Your task to perform on an android device: add a contact Image 0: 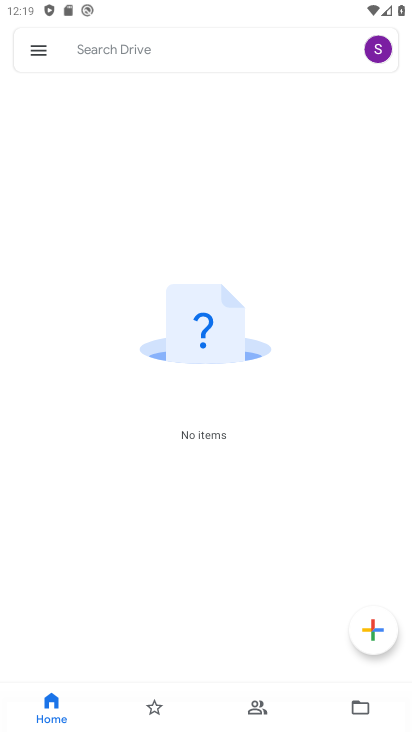
Step 0: press home button
Your task to perform on an android device: add a contact Image 1: 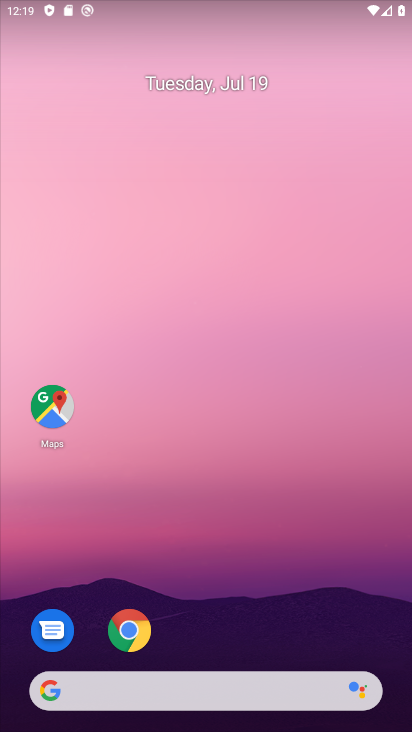
Step 1: drag from (199, 693) to (309, 205)
Your task to perform on an android device: add a contact Image 2: 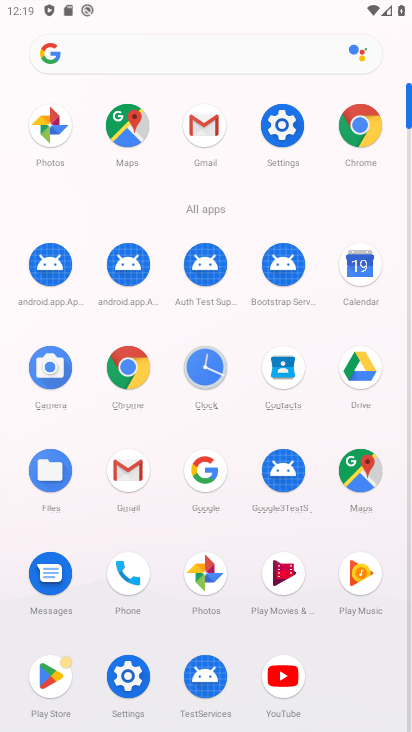
Step 2: click (282, 373)
Your task to perform on an android device: add a contact Image 3: 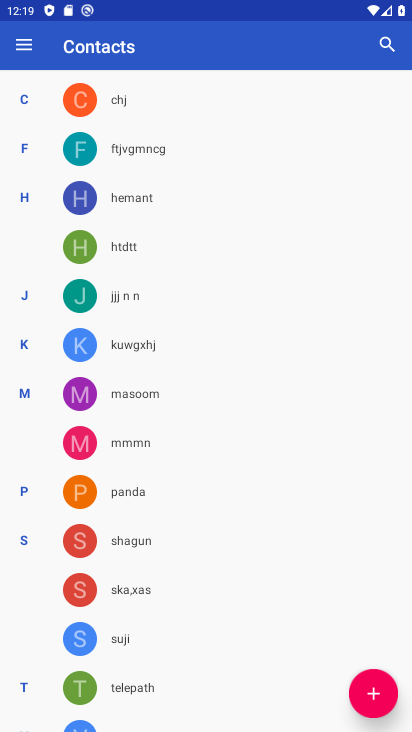
Step 3: click (369, 687)
Your task to perform on an android device: add a contact Image 4: 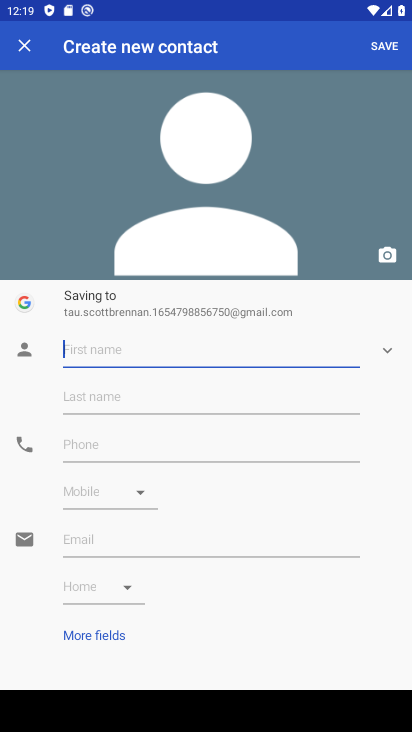
Step 4: type "erfghhh"
Your task to perform on an android device: add a contact Image 5: 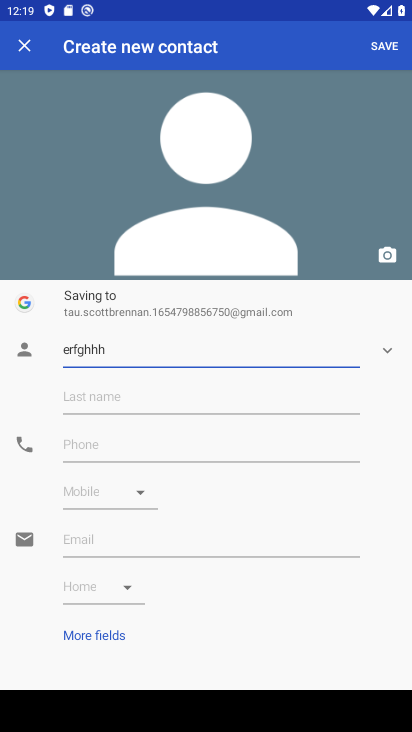
Step 5: click (99, 439)
Your task to perform on an android device: add a contact Image 6: 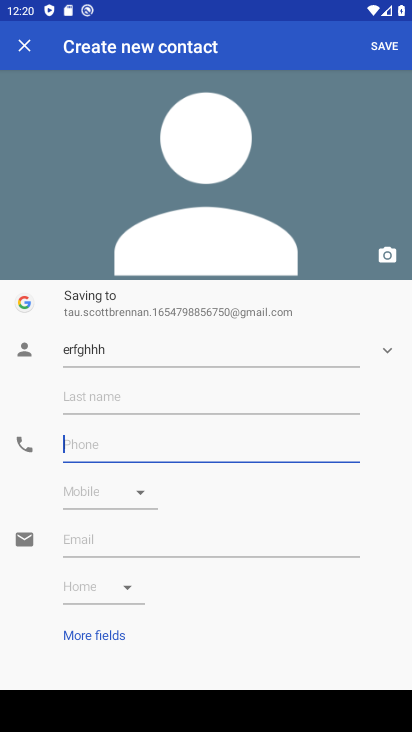
Step 6: type "23445566"
Your task to perform on an android device: add a contact Image 7: 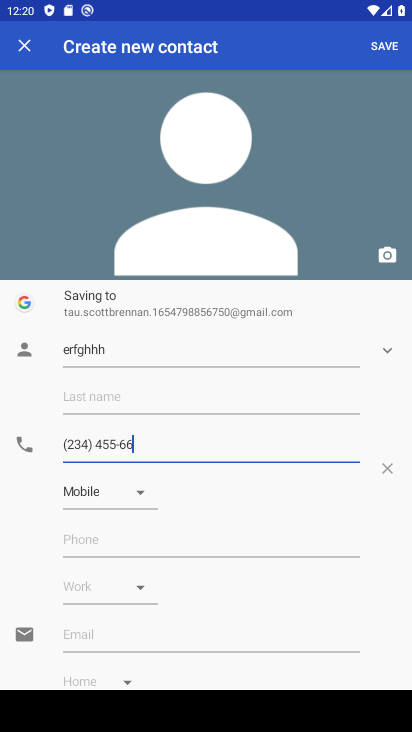
Step 7: click (383, 47)
Your task to perform on an android device: add a contact Image 8: 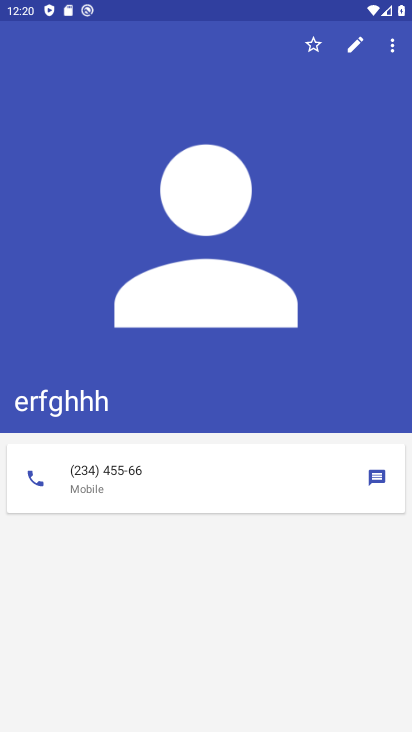
Step 8: task complete